Your task to perform on an android device: turn off data saver in the chrome app Image 0: 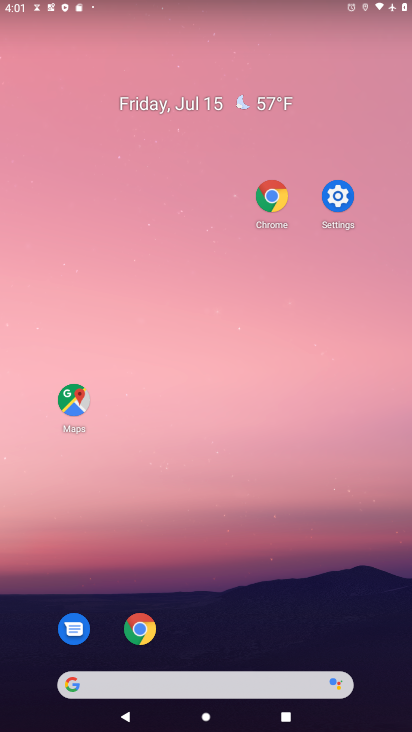
Step 0: drag from (261, 556) to (260, 122)
Your task to perform on an android device: turn off data saver in the chrome app Image 1: 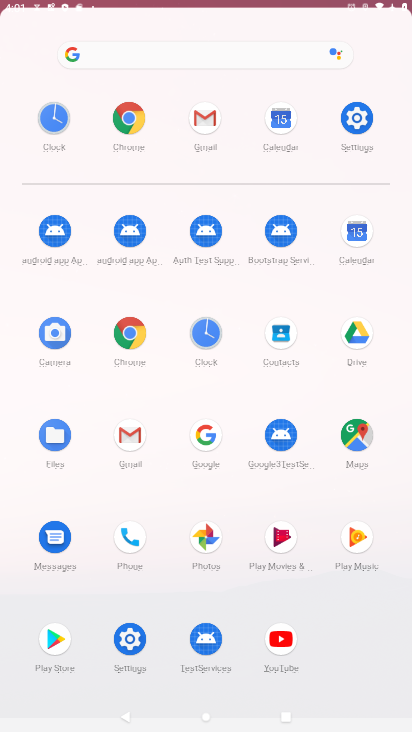
Step 1: drag from (248, 519) to (222, 110)
Your task to perform on an android device: turn off data saver in the chrome app Image 2: 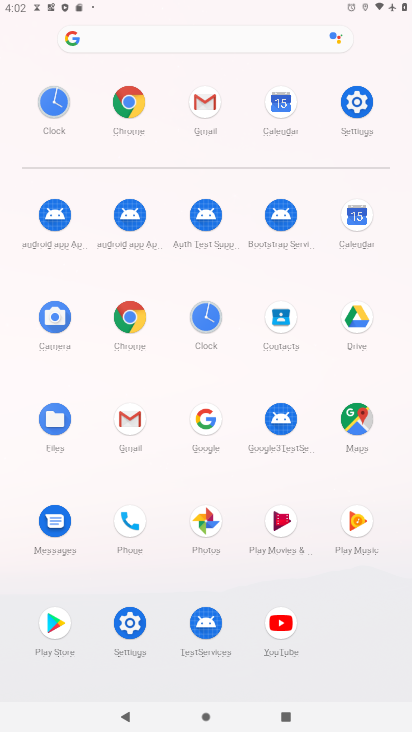
Step 2: click (132, 321)
Your task to perform on an android device: turn off data saver in the chrome app Image 3: 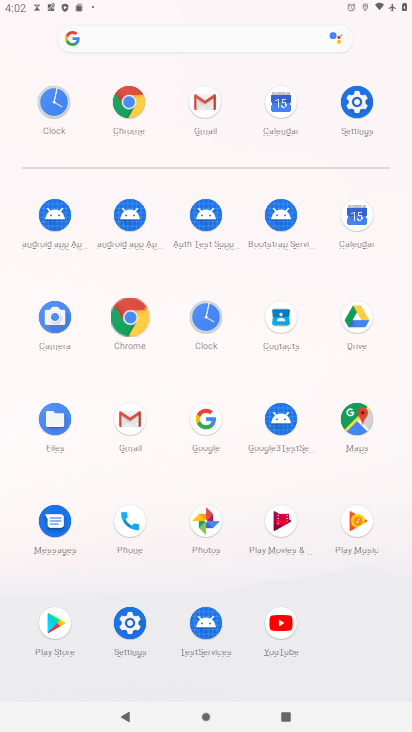
Step 3: click (131, 319)
Your task to perform on an android device: turn off data saver in the chrome app Image 4: 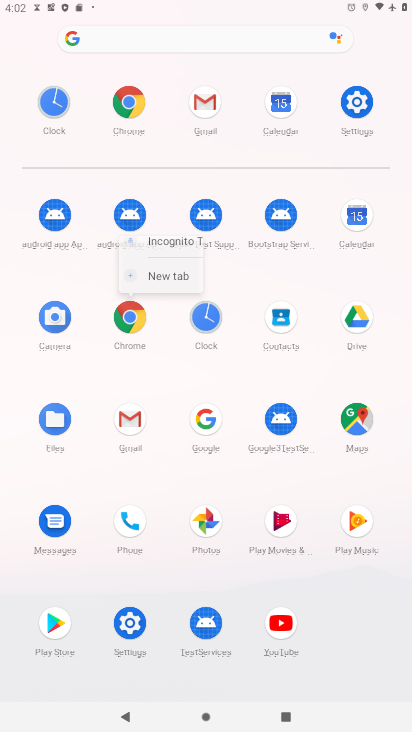
Step 4: click (132, 317)
Your task to perform on an android device: turn off data saver in the chrome app Image 5: 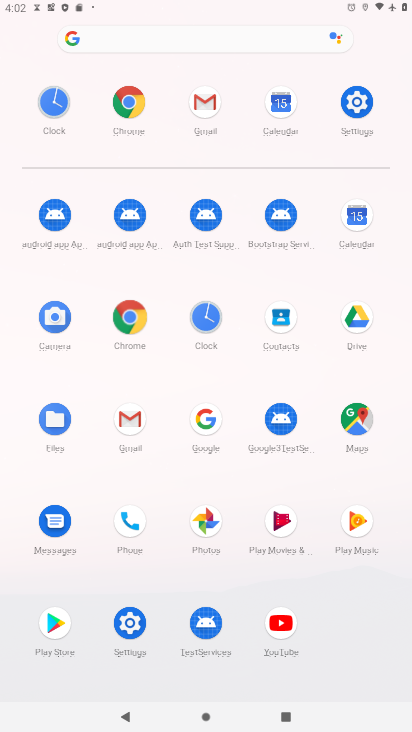
Step 5: click (133, 317)
Your task to perform on an android device: turn off data saver in the chrome app Image 6: 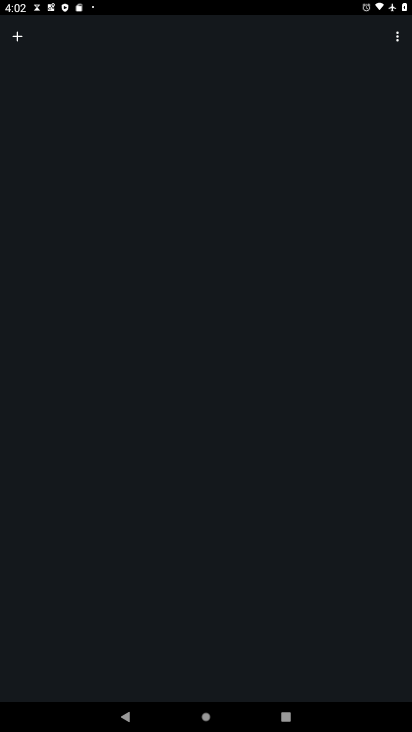
Step 6: press back button
Your task to perform on an android device: turn off data saver in the chrome app Image 7: 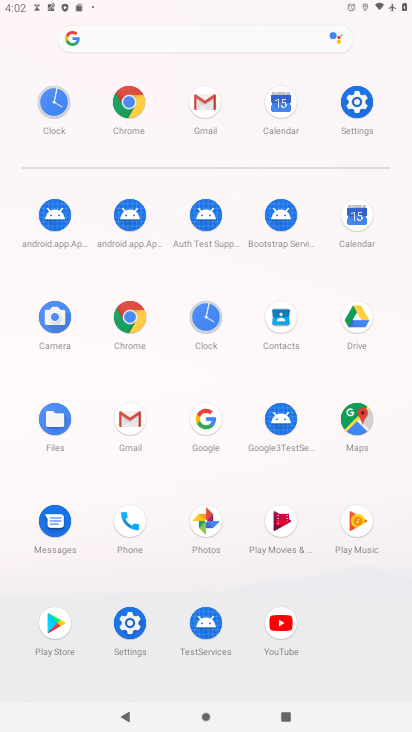
Step 7: click (126, 104)
Your task to perform on an android device: turn off data saver in the chrome app Image 8: 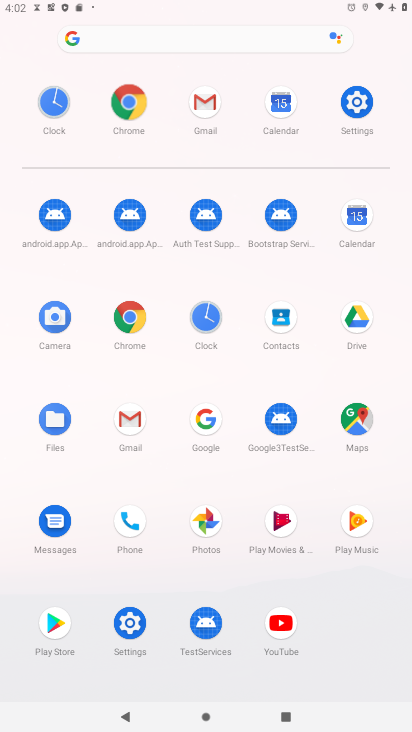
Step 8: click (126, 104)
Your task to perform on an android device: turn off data saver in the chrome app Image 9: 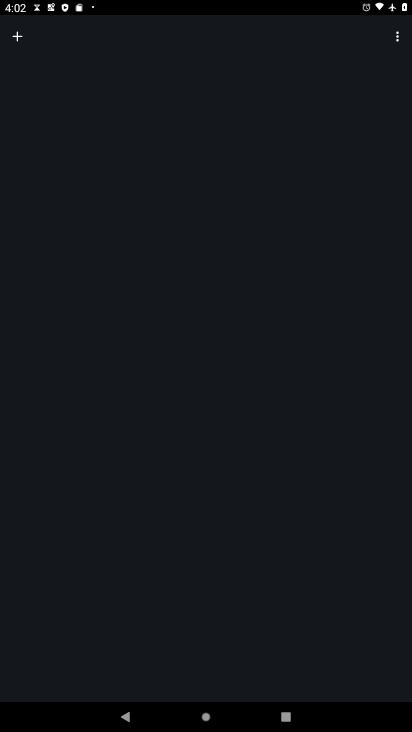
Step 9: click (20, 50)
Your task to perform on an android device: turn off data saver in the chrome app Image 10: 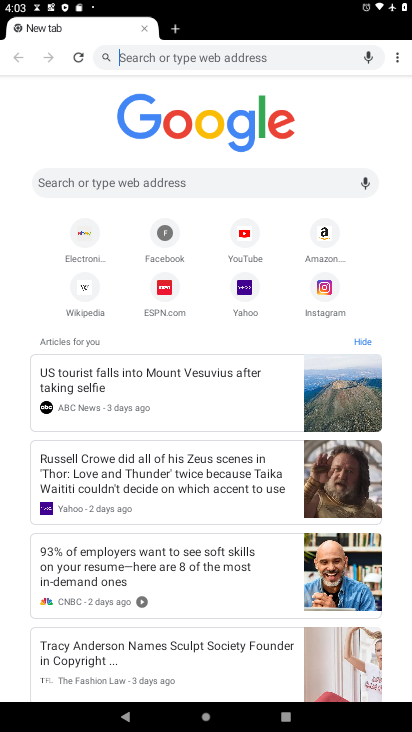
Step 10: drag from (396, 64) to (269, 270)
Your task to perform on an android device: turn off data saver in the chrome app Image 11: 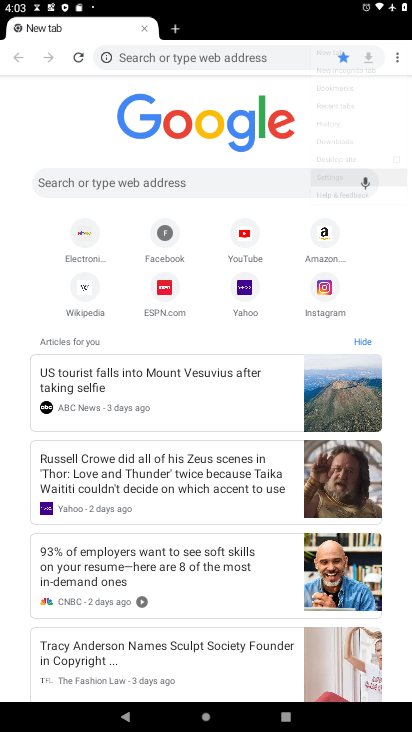
Step 11: click (269, 270)
Your task to perform on an android device: turn off data saver in the chrome app Image 12: 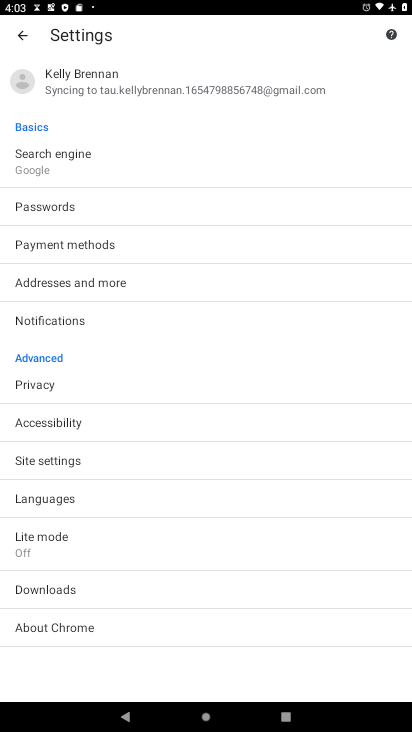
Step 12: drag from (62, 570) to (63, 190)
Your task to perform on an android device: turn off data saver in the chrome app Image 13: 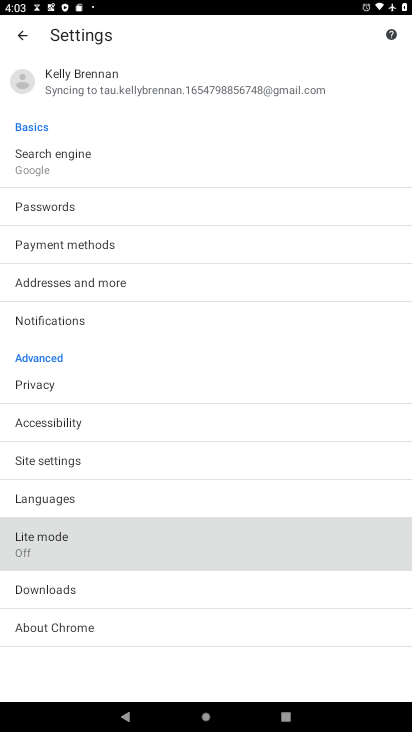
Step 13: drag from (100, 418) to (116, 114)
Your task to perform on an android device: turn off data saver in the chrome app Image 14: 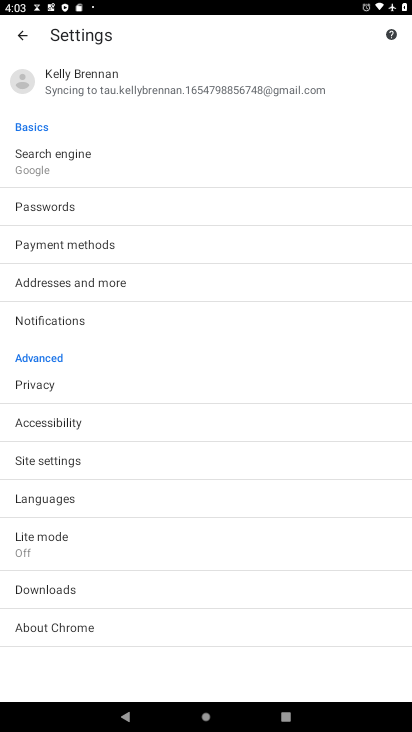
Step 14: click (42, 534)
Your task to perform on an android device: turn off data saver in the chrome app Image 15: 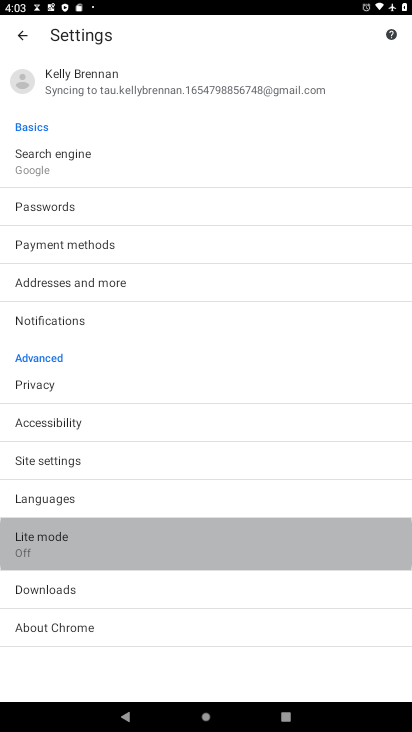
Step 15: click (47, 540)
Your task to perform on an android device: turn off data saver in the chrome app Image 16: 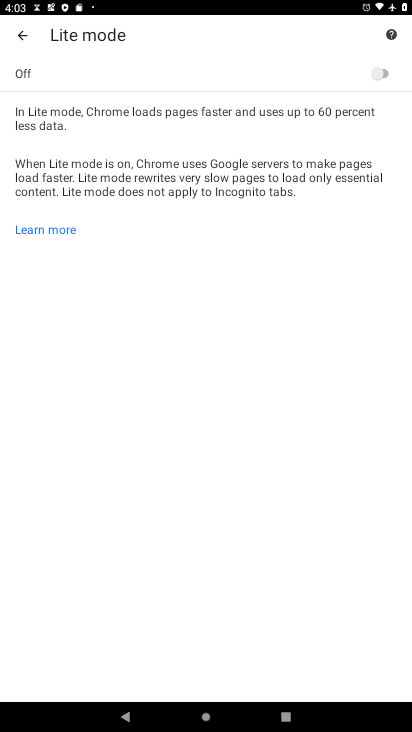
Step 16: task complete